Your task to perform on an android device: check android version Image 0: 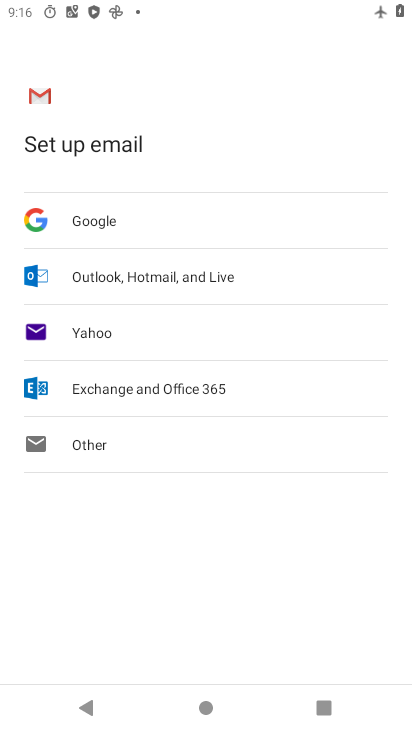
Step 0: press home button
Your task to perform on an android device: check android version Image 1: 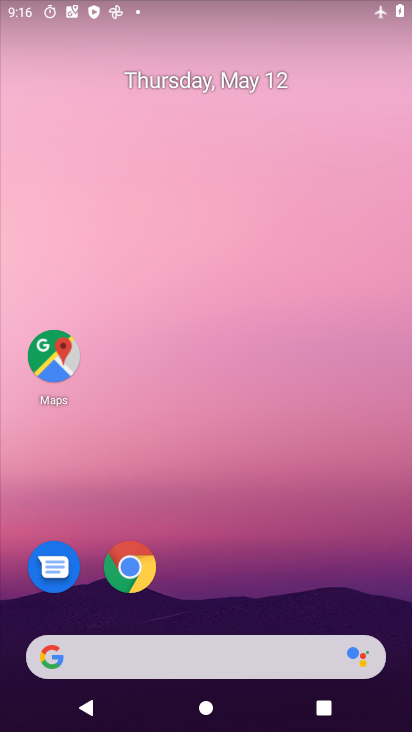
Step 1: drag from (278, 660) to (301, 222)
Your task to perform on an android device: check android version Image 2: 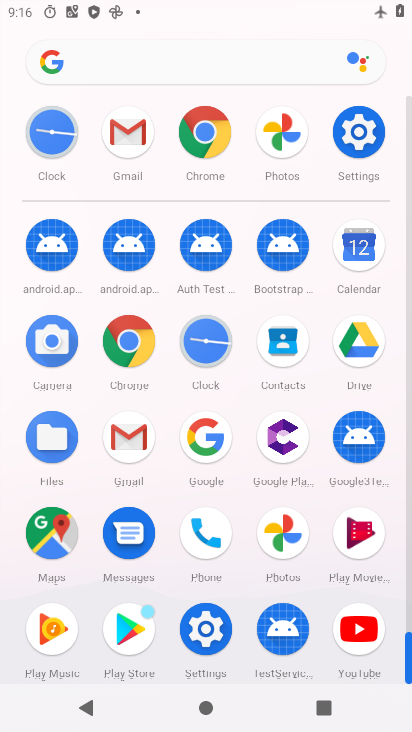
Step 2: click (352, 174)
Your task to perform on an android device: check android version Image 3: 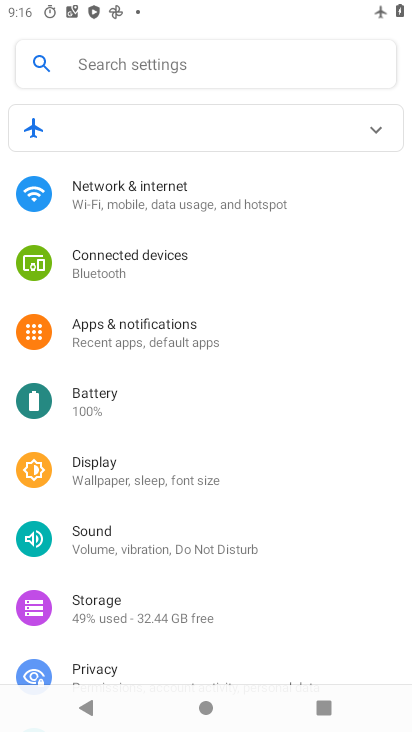
Step 3: drag from (174, 576) to (178, 264)
Your task to perform on an android device: check android version Image 4: 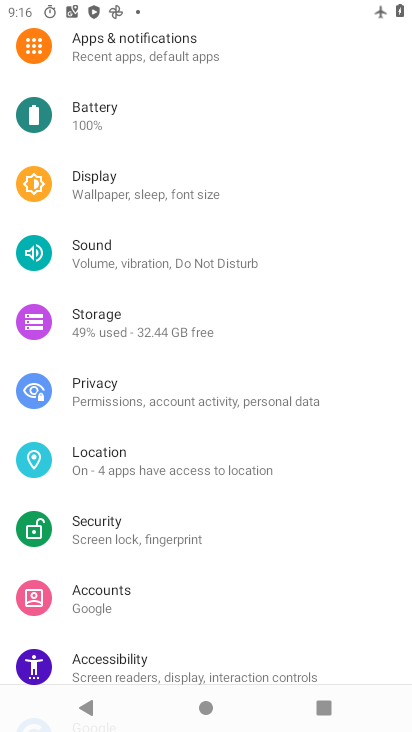
Step 4: drag from (184, 524) to (185, 224)
Your task to perform on an android device: check android version Image 5: 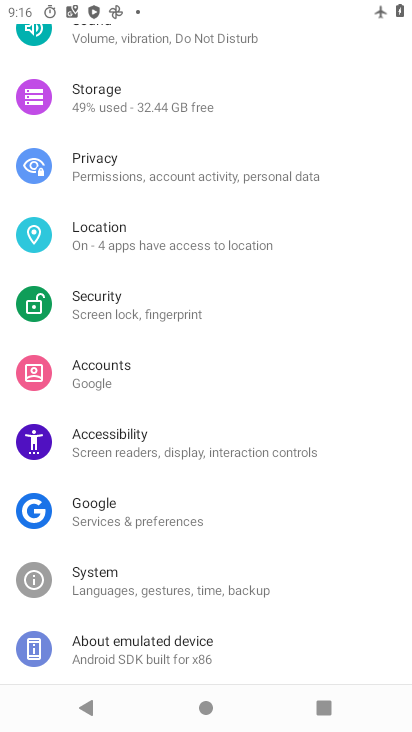
Step 5: drag from (185, 527) to (193, 259)
Your task to perform on an android device: check android version Image 6: 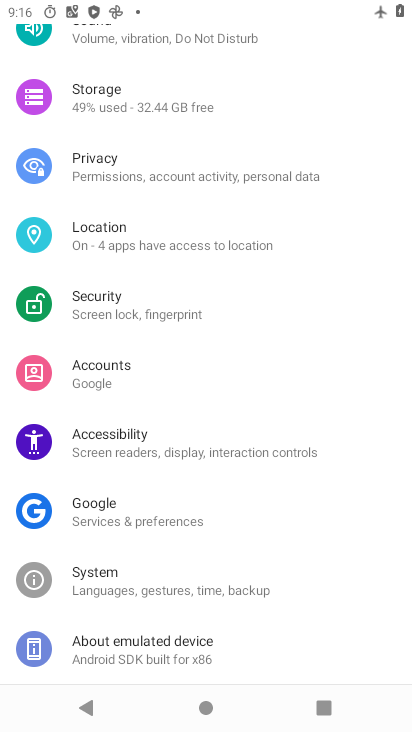
Step 6: click (188, 664)
Your task to perform on an android device: check android version Image 7: 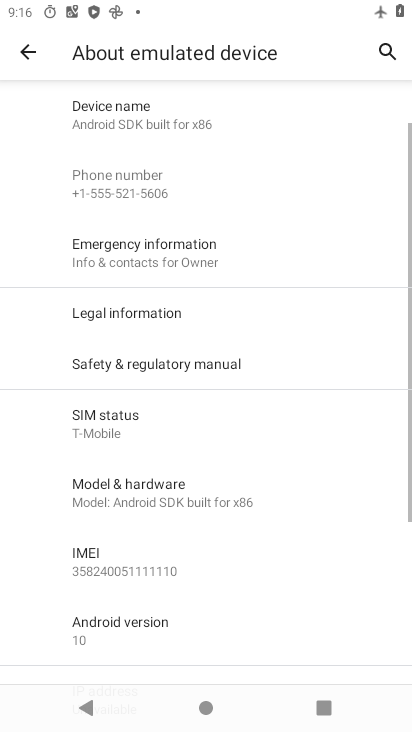
Step 7: drag from (177, 543) to (176, 344)
Your task to perform on an android device: check android version Image 8: 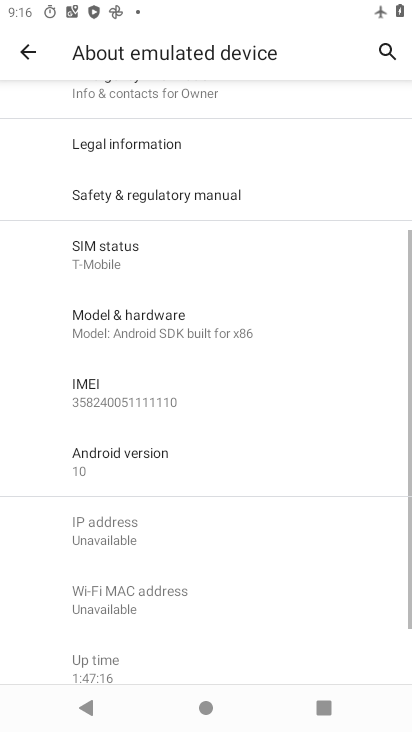
Step 8: click (171, 470)
Your task to perform on an android device: check android version Image 9: 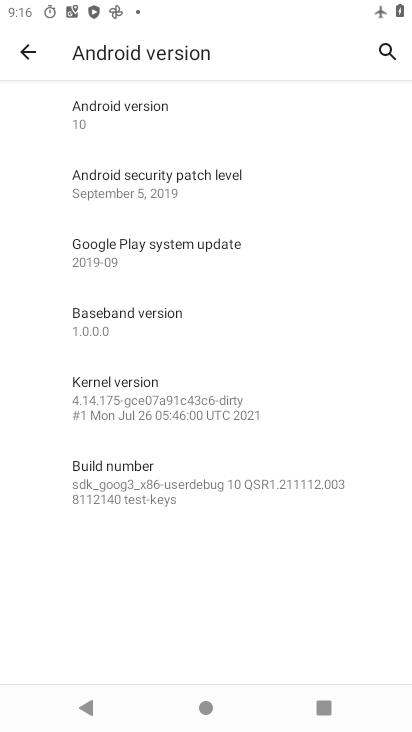
Step 9: task complete